Your task to perform on an android device: open app "Pandora - Music & Podcasts" (install if not already installed) and go to login screen Image 0: 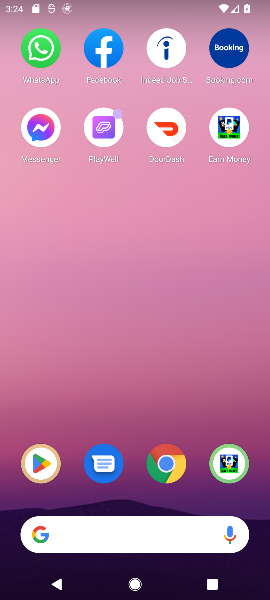
Step 0: drag from (169, 535) to (124, 211)
Your task to perform on an android device: open app "Pandora - Music & Podcasts" (install if not already installed) and go to login screen Image 1: 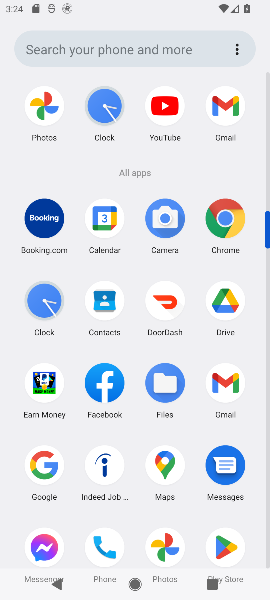
Step 1: click (230, 542)
Your task to perform on an android device: open app "Pandora - Music & Podcasts" (install if not already installed) and go to login screen Image 2: 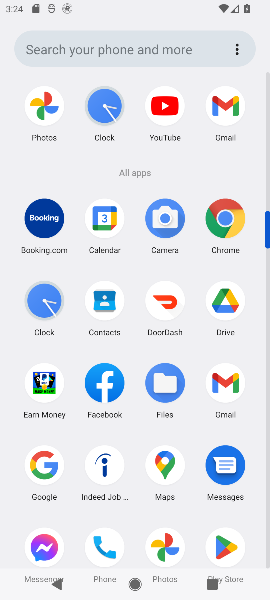
Step 2: click (226, 540)
Your task to perform on an android device: open app "Pandora - Music & Podcasts" (install if not already installed) and go to login screen Image 3: 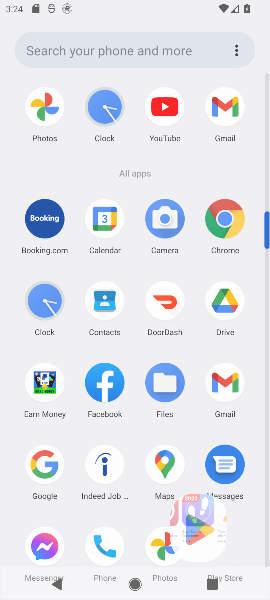
Step 3: click (226, 540)
Your task to perform on an android device: open app "Pandora - Music & Podcasts" (install if not already installed) and go to login screen Image 4: 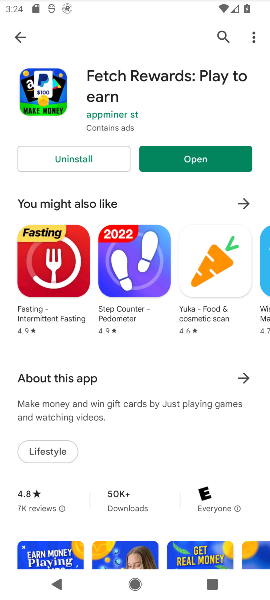
Step 4: click (225, 540)
Your task to perform on an android device: open app "Pandora - Music & Podcasts" (install if not already installed) and go to login screen Image 5: 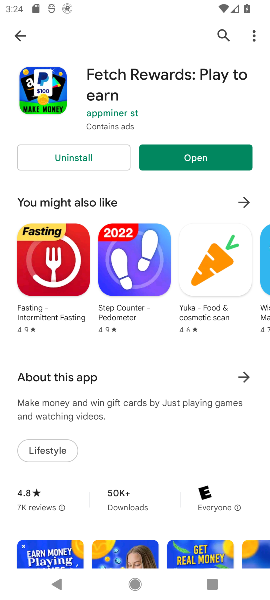
Step 5: click (218, 30)
Your task to perform on an android device: open app "Pandora - Music & Podcasts" (install if not already installed) and go to login screen Image 6: 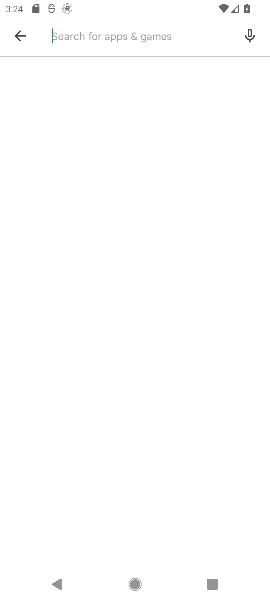
Step 6: click (220, 30)
Your task to perform on an android device: open app "Pandora - Music & Podcasts" (install if not already installed) and go to login screen Image 7: 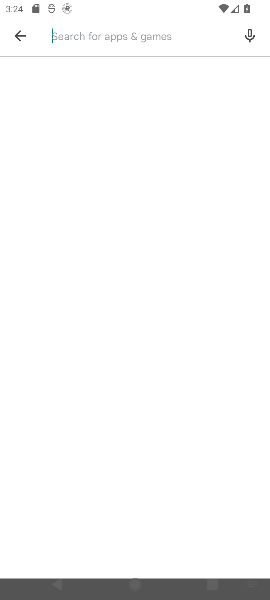
Step 7: click (220, 31)
Your task to perform on an android device: open app "Pandora - Music & Podcasts" (install if not already installed) and go to login screen Image 8: 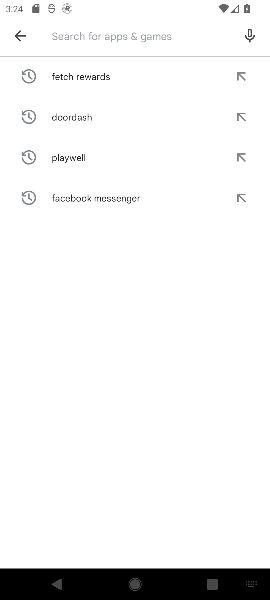
Step 8: click (220, 31)
Your task to perform on an android device: open app "Pandora - Music & Podcasts" (install if not already installed) and go to login screen Image 9: 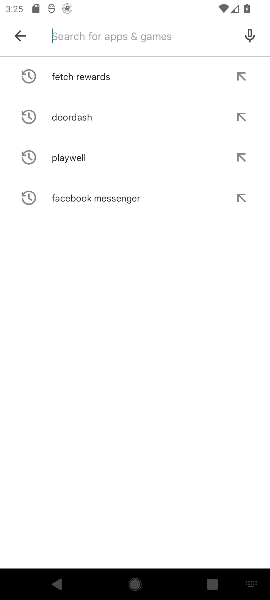
Step 9: type "pandora"
Your task to perform on an android device: open app "Pandora - Music & Podcasts" (install if not already installed) and go to login screen Image 10: 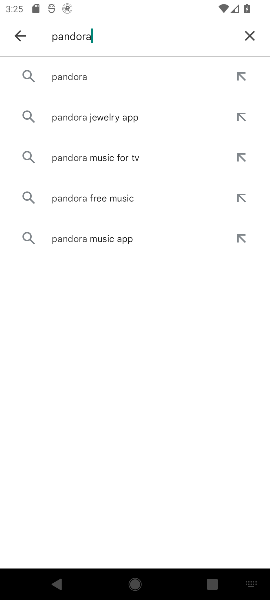
Step 10: click (61, 75)
Your task to perform on an android device: open app "Pandora - Music & Podcasts" (install if not already installed) and go to login screen Image 11: 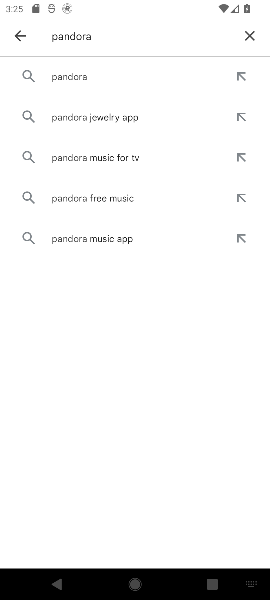
Step 11: click (57, 73)
Your task to perform on an android device: open app "Pandora - Music & Podcasts" (install if not already installed) and go to login screen Image 12: 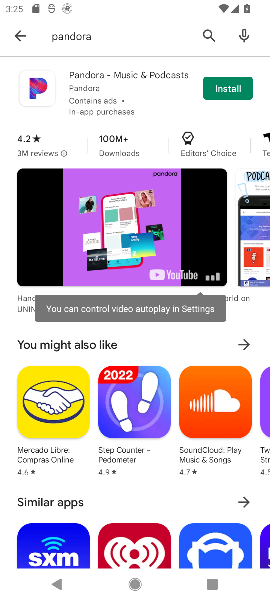
Step 12: click (230, 92)
Your task to perform on an android device: open app "Pandora - Music & Podcasts" (install if not already installed) and go to login screen Image 13: 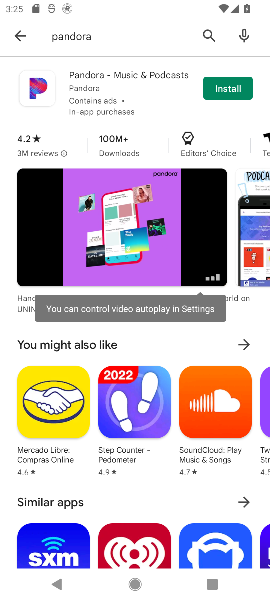
Step 13: click (232, 92)
Your task to perform on an android device: open app "Pandora - Music & Podcasts" (install if not already installed) and go to login screen Image 14: 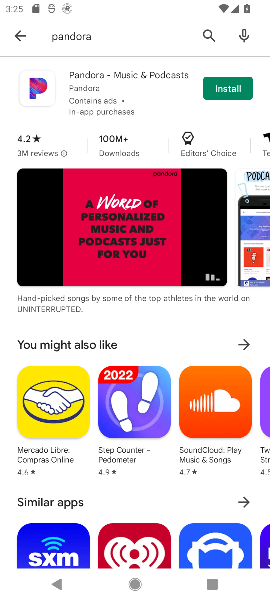
Step 14: click (232, 89)
Your task to perform on an android device: open app "Pandora - Music & Podcasts" (install if not already installed) and go to login screen Image 15: 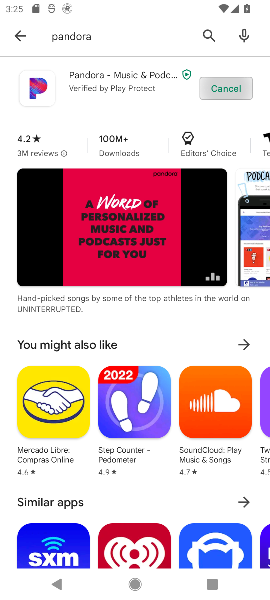
Step 15: click (231, 89)
Your task to perform on an android device: open app "Pandora - Music & Podcasts" (install if not already installed) and go to login screen Image 16: 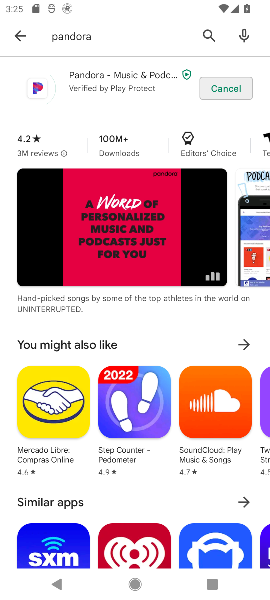
Step 16: click (229, 88)
Your task to perform on an android device: open app "Pandora - Music & Podcasts" (install if not already installed) and go to login screen Image 17: 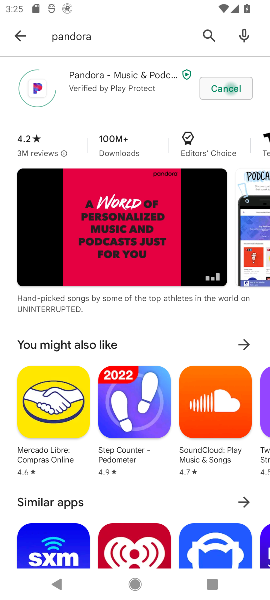
Step 17: click (229, 87)
Your task to perform on an android device: open app "Pandora - Music & Podcasts" (install if not already installed) and go to login screen Image 18: 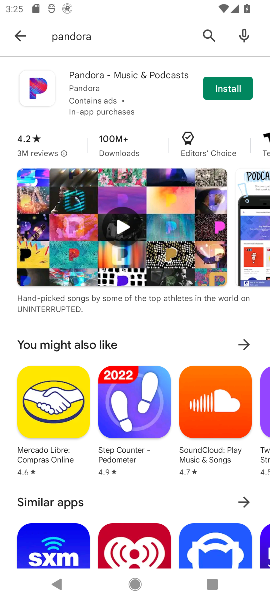
Step 18: click (230, 88)
Your task to perform on an android device: open app "Pandora - Music & Podcasts" (install if not already installed) and go to login screen Image 19: 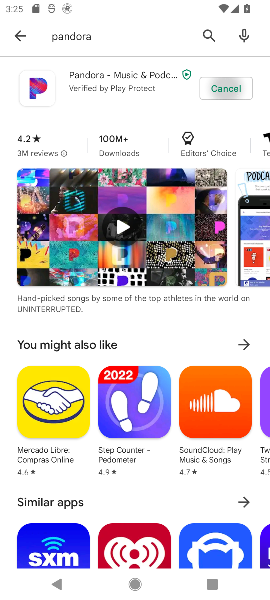
Step 19: click (232, 89)
Your task to perform on an android device: open app "Pandora - Music & Podcasts" (install if not already installed) and go to login screen Image 20: 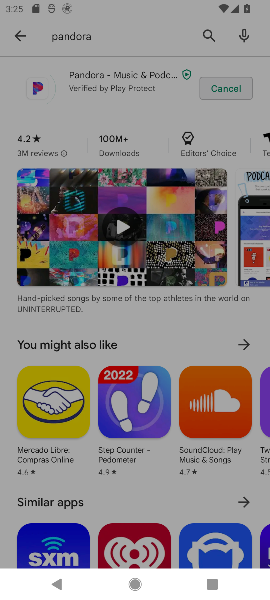
Step 20: click (233, 89)
Your task to perform on an android device: open app "Pandora - Music & Podcasts" (install if not already installed) and go to login screen Image 21: 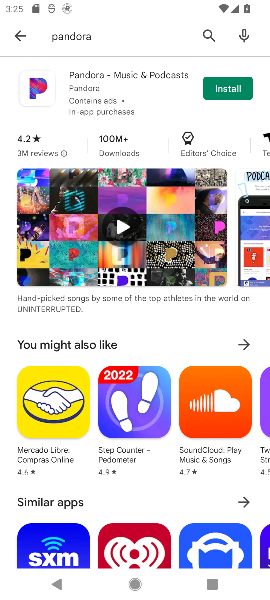
Step 21: click (232, 91)
Your task to perform on an android device: open app "Pandora - Music & Podcasts" (install if not already installed) and go to login screen Image 22: 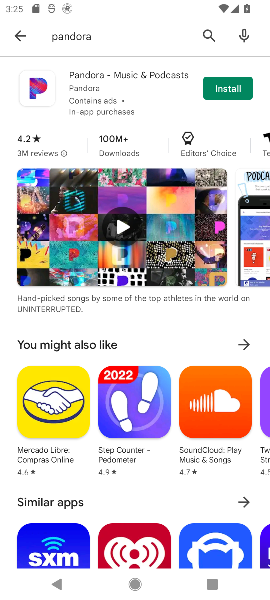
Step 22: click (232, 91)
Your task to perform on an android device: open app "Pandora - Music & Podcasts" (install if not already installed) and go to login screen Image 23: 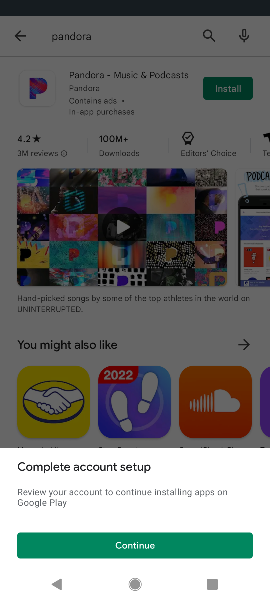
Step 23: click (155, 543)
Your task to perform on an android device: open app "Pandora - Music & Podcasts" (install if not already installed) and go to login screen Image 24: 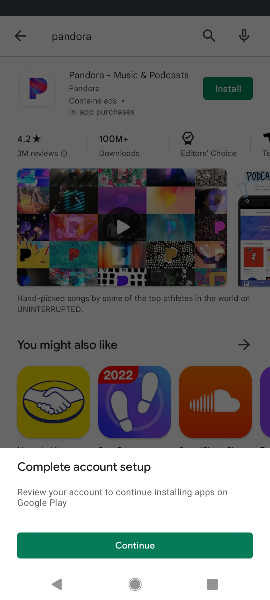
Step 24: click (155, 543)
Your task to perform on an android device: open app "Pandora - Music & Podcasts" (install if not already installed) and go to login screen Image 25: 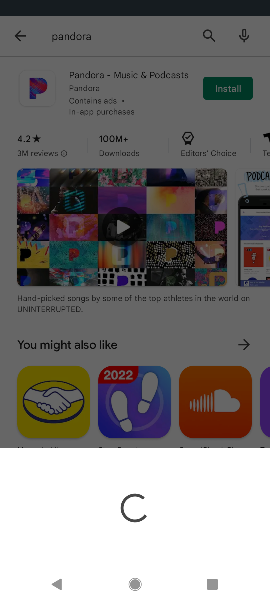
Step 25: click (154, 544)
Your task to perform on an android device: open app "Pandora - Music & Podcasts" (install if not already installed) and go to login screen Image 26: 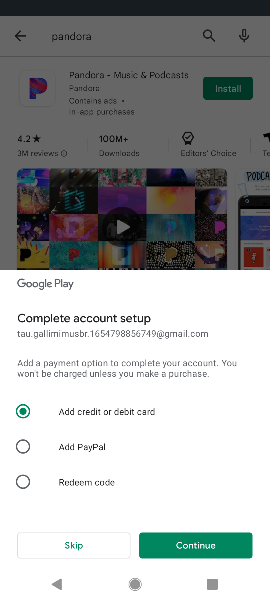
Step 26: click (81, 540)
Your task to perform on an android device: open app "Pandora - Music & Podcasts" (install if not already installed) and go to login screen Image 27: 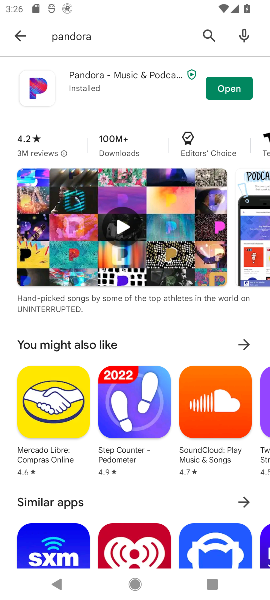
Step 27: click (242, 85)
Your task to perform on an android device: open app "Pandora - Music & Podcasts" (install if not already installed) and go to login screen Image 28: 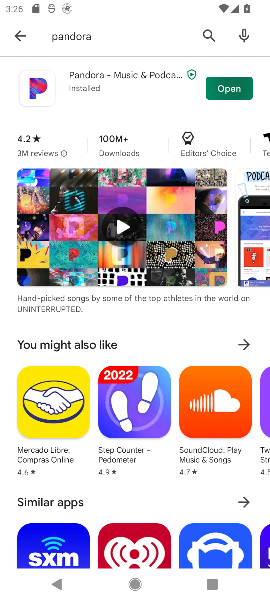
Step 28: click (245, 87)
Your task to perform on an android device: open app "Pandora - Music & Podcasts" (install if not already installed) and go to login screen Image 29: 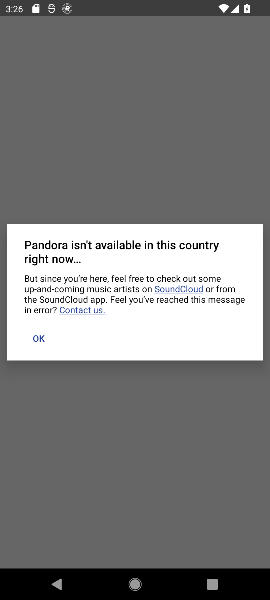
Step 29: click (41, 329)
Your task to perform on an android device: open app "Pandora - Music & Podcasts" (install if not already installed) and go to login screen Image 30: 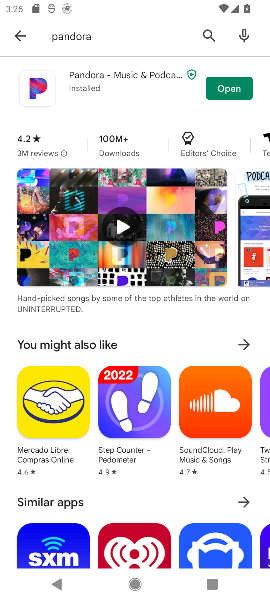
Step 30: click (239, 75)
Your task to perform on an android device: open app "Pandora - Music & Podcasts" (install if not already installed) and go to login screen Image 31: 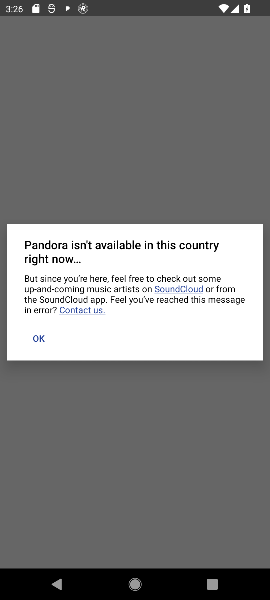
Step 31: click (38, 338)
Your task to perform on an android device: open app "Pandora - Music & Podcasts" (install if not already installed) and go to login screen Image 32: 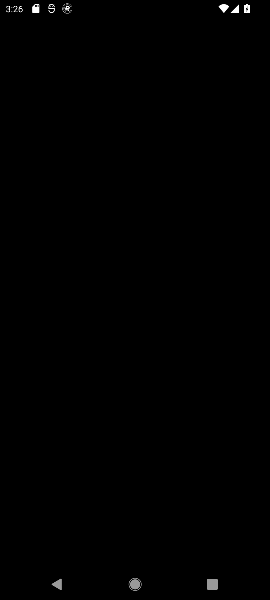
Step 32: task complete